Your task to perform on an android device: turn vacation reply on in the gmail app Image 0: 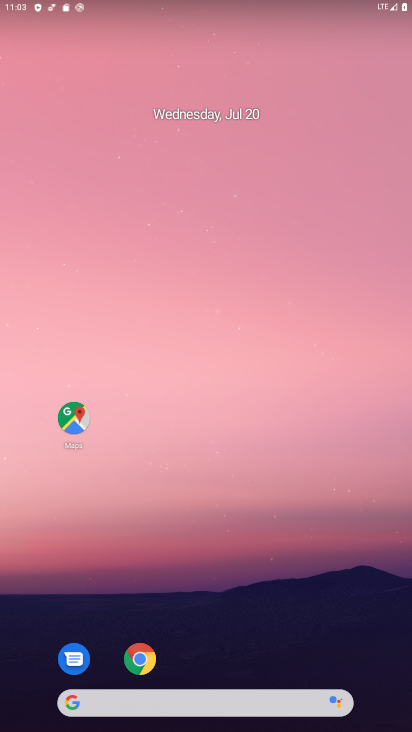
Step 0: drag from (222, 696) to (222, 278)
Your task to perform on an android device: turn vacation reply on in the gmail app Image 1: 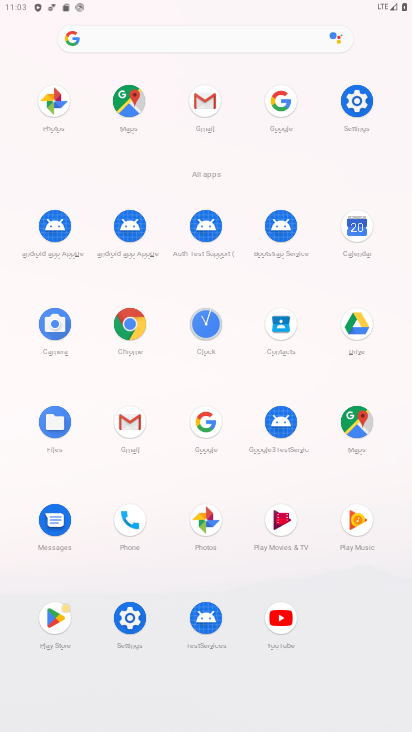
Step 1: click (126, 425)
Your task to perform on an android device: turn vacation reply on in the gmail app Image 2: 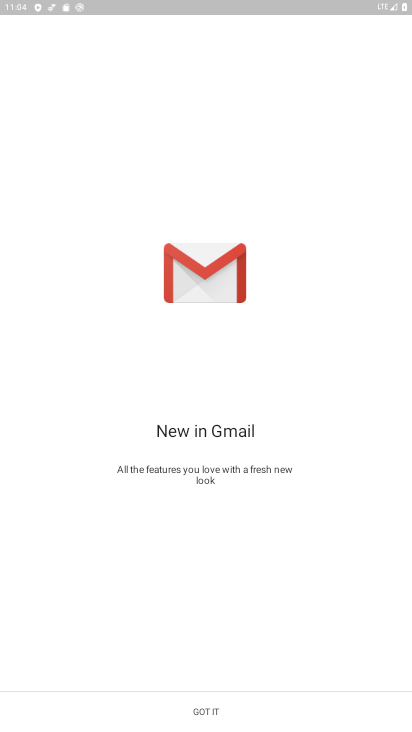
Step 2: click (213, 710)
Your task to perform on an android device: turn vacation reply on in the gmail app Image 3: 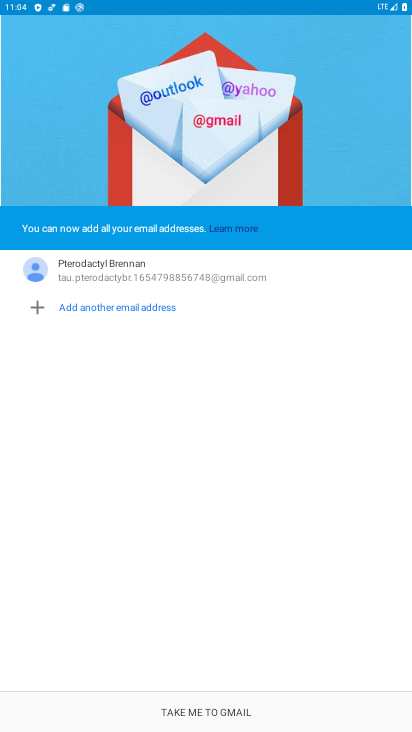
Step 3: click (220, 708)
Your task to perform on an android device: turn vacation reply on in the gmail app Image 4: 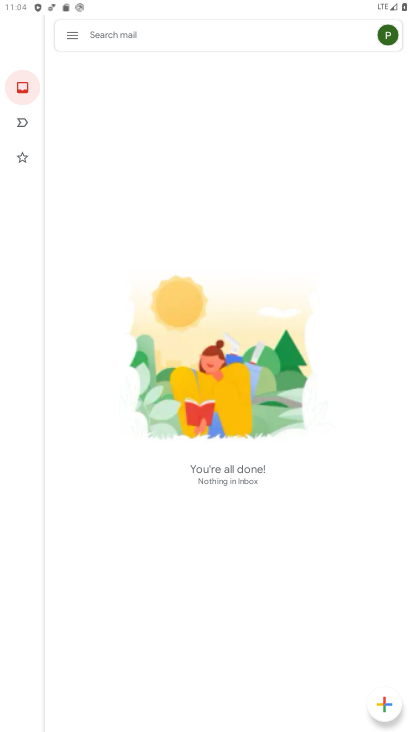
Step 4: click (65, 37)
Your task to perform on an android device: turn vacation reply on in the gmail app Image 5: 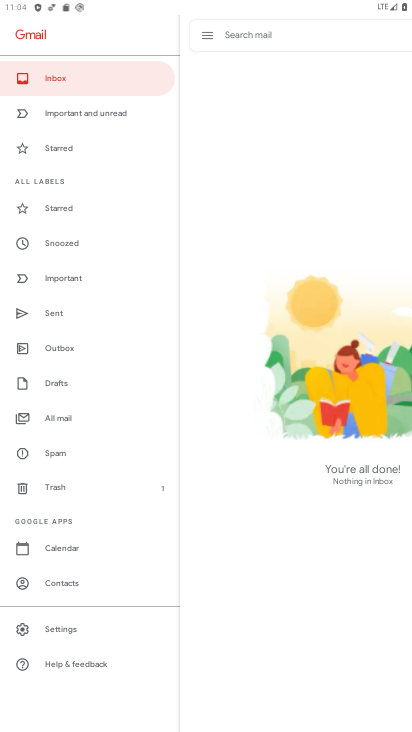
Step 5: click (62, 628)
Your task to perform on an android device: turn vacation reply on in the gmail app Image 6: 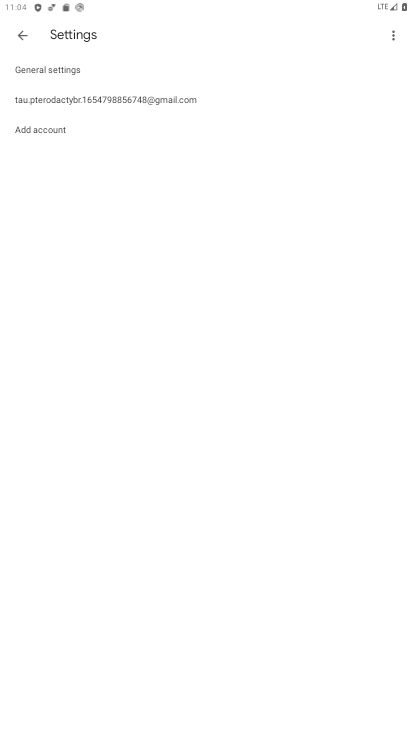
Step 6: click (104, 98)
Your task to perform on an android device: turn vacation reply on in the gmail app Image 7: 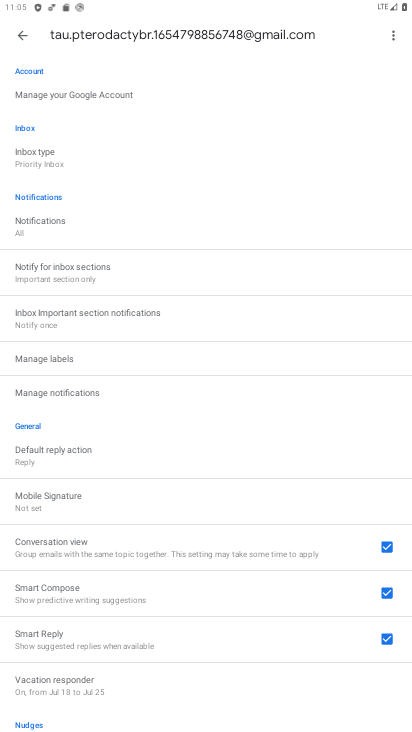
Step 7: click (86, 682)
Your task to perform on an android device: turn vacation reply on in the gmail app Image 8: 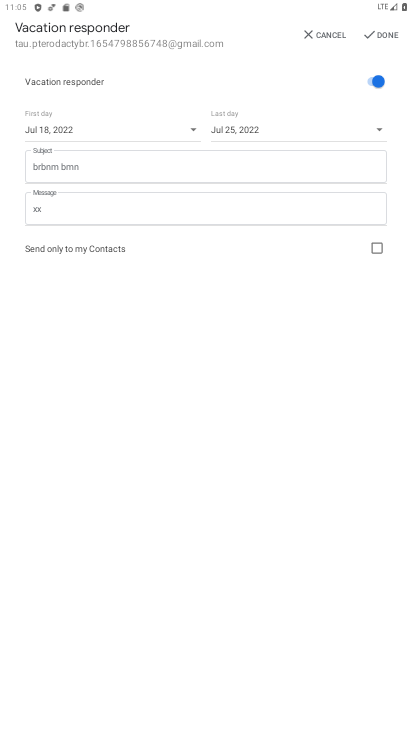
Step 8: task complete